Your task to perform on an android device: turn notification dots on Image 0: 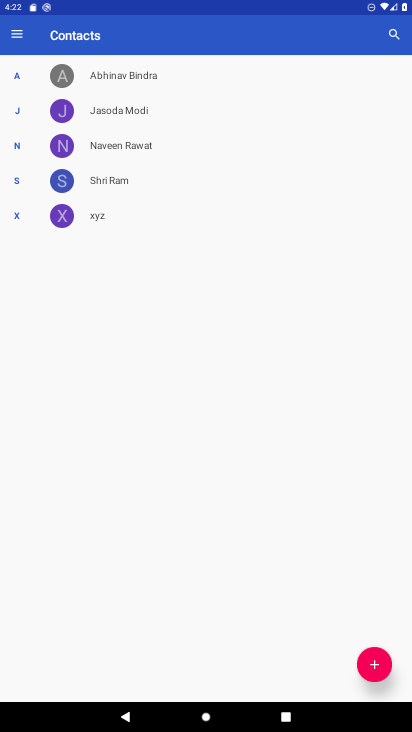
Step 0: press home button
Your task to perform on an android device: turn notification dots on Image 1: 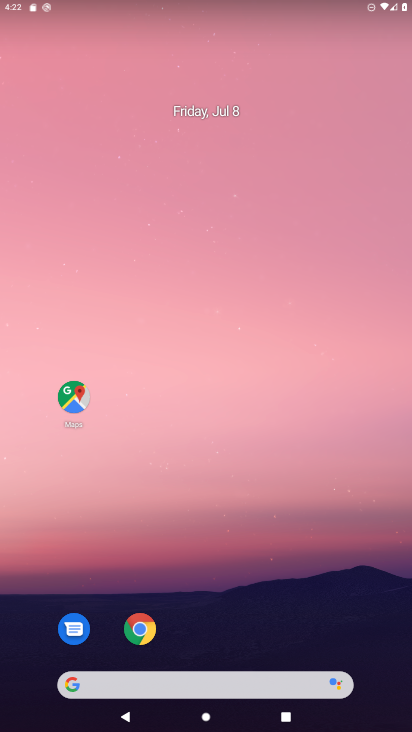
Step 1: drag from (250, 628) to (232, 145)
Your task to perform on an android device: turn notification dots on Image 2: 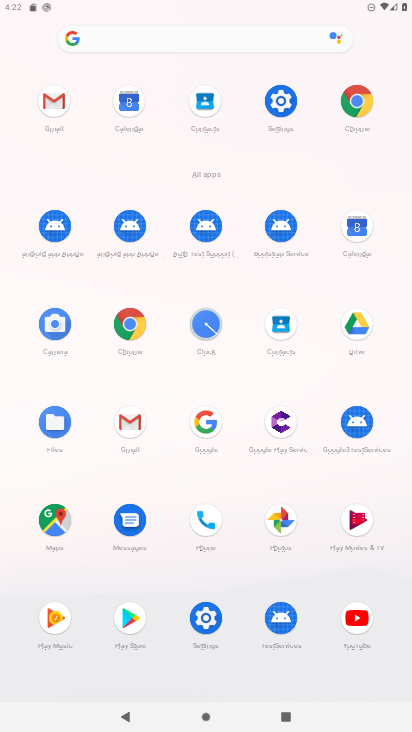
Step 2: click (293, 106)
Your task to perform on an android device: turn notification dots on Image 3: 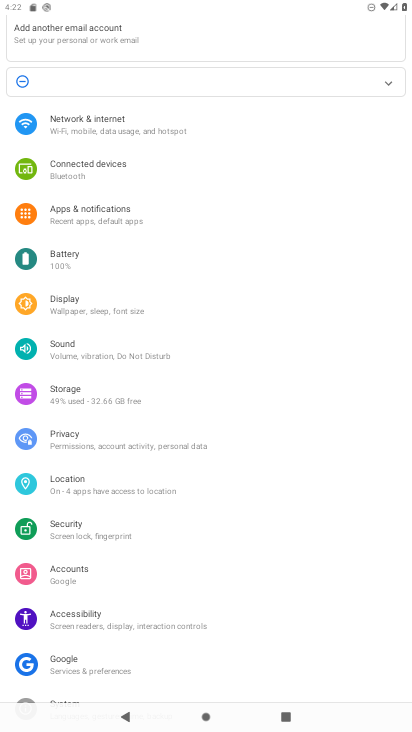
Step 3: click (97, 211)
Your task to perform on an android device: turn notification dots on Image 4: 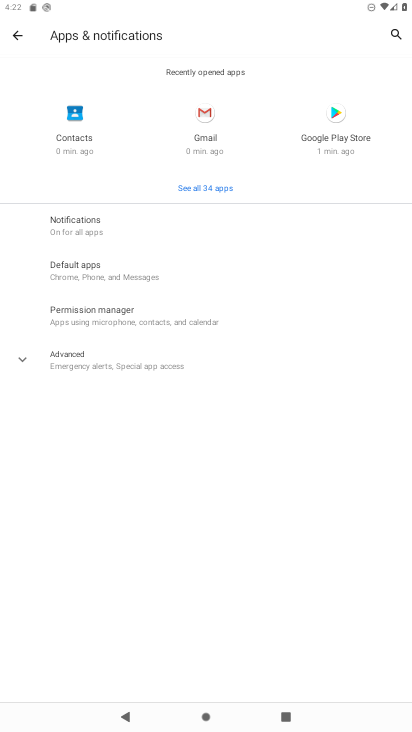
Step 4: click (95, 369)
Your task to perform on an android device: turn notification dots on Image 5: 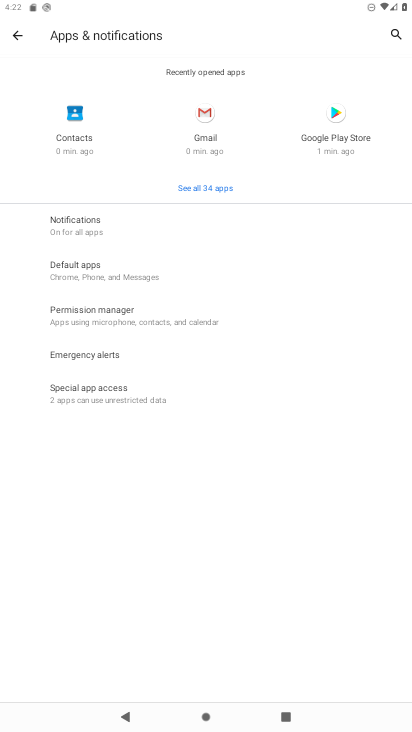
Step 5: click (132, 222)
Your task to perform on an android device: turn notification dots on Image 6: 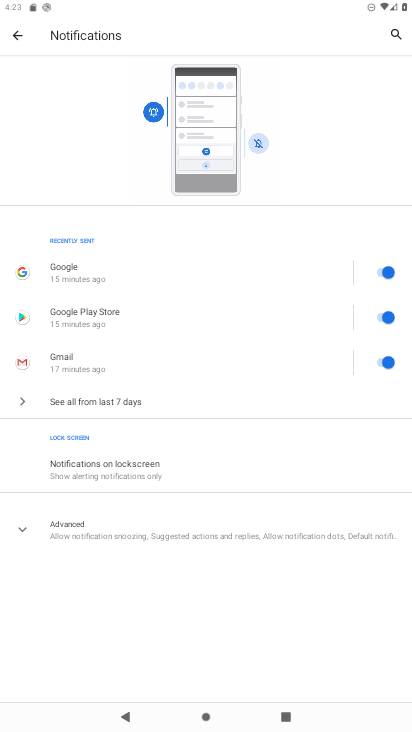
Step 6: click (140, 452)
Your task to perform on an android device: turn notification dots on Image 7: 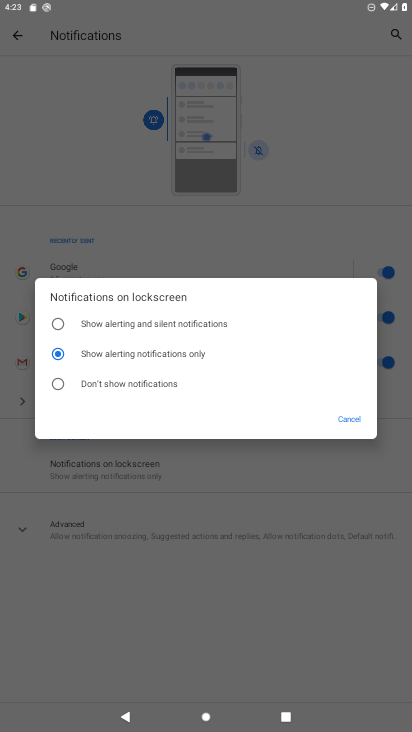
Step 7: click (356, 424)
Your task to perform on an android device: turn notification dots on Image 8: 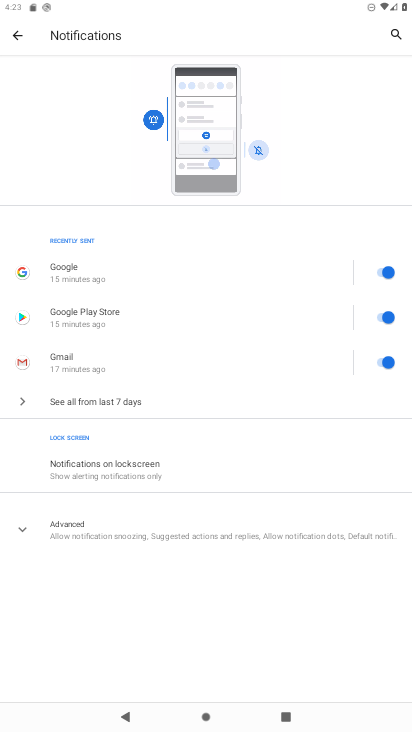
Step 8: click (128, 547)
Your task to perform on an android device: turn notification dots on Image 9: 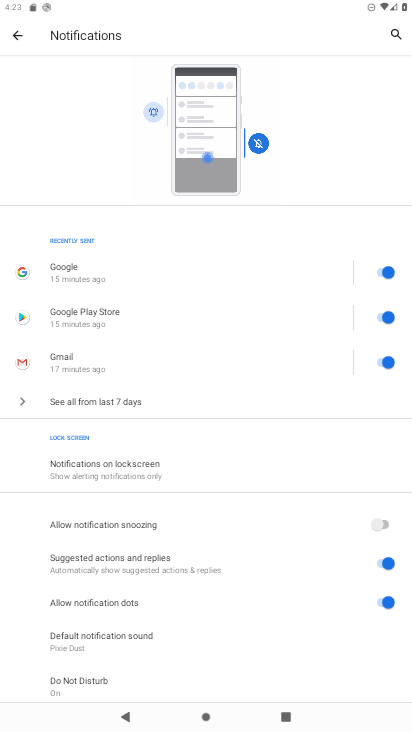
Step 9: click (361, 590)
Your task to perform on an android device: turn notification dots on Image 10: 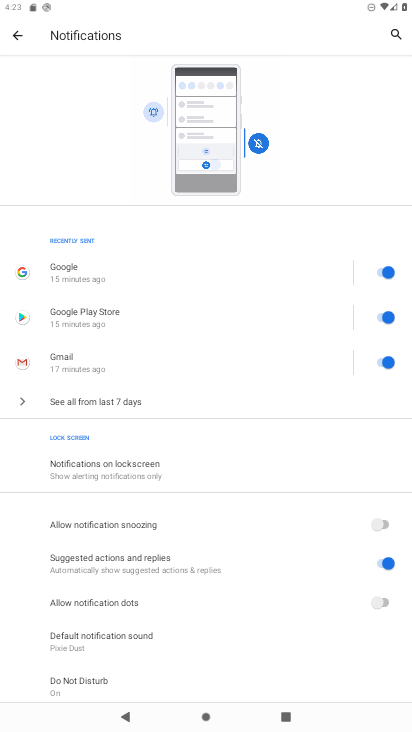
Step 10: click (343, 613)
Your task to perform on an android device: turn notification dots on Image 11: 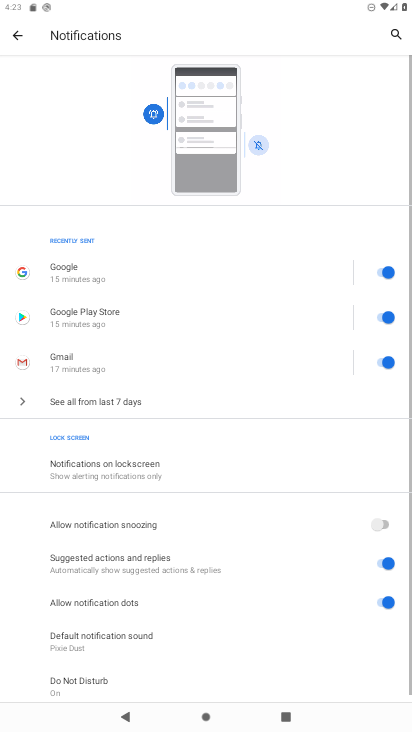
Step 11: task complete